Your task to perform on an android device: Open settings on Google Maps Image 0: 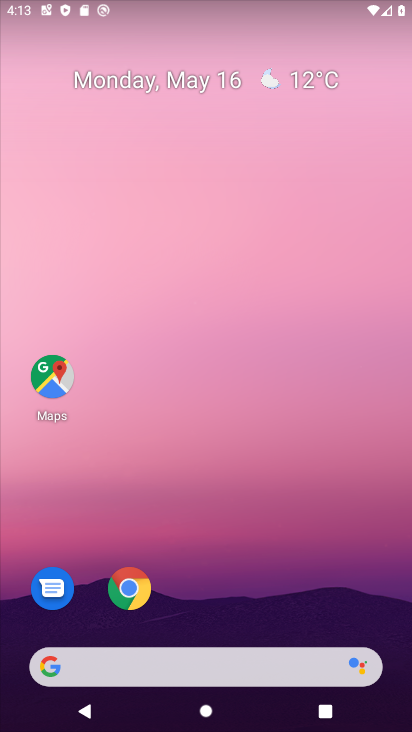
Step 0: click (58, 373)
Your task to perform on an android device: Open settings on Google Maps Image 1: 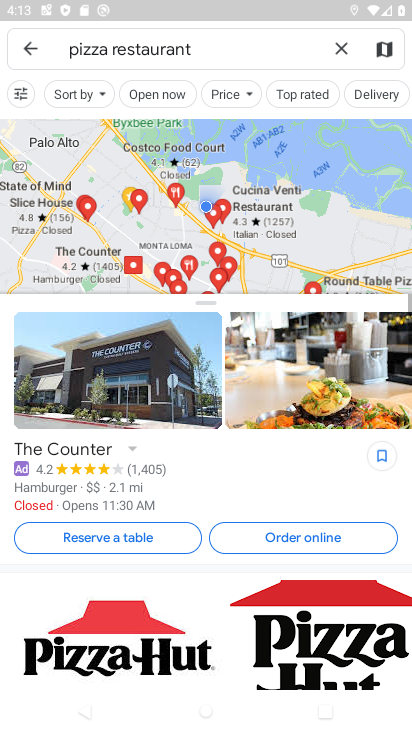
Step 1: click (21, 48)
Your task to perform on an android device: Open settings on Google Maps Image 2: 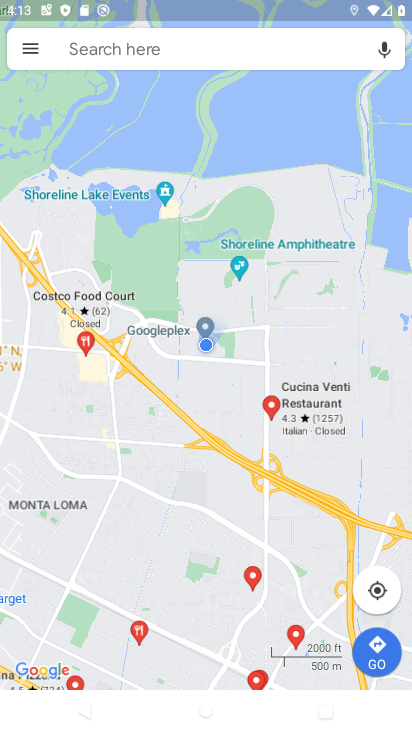
Step 2: click (21, 48)
Your task to perform on an android device: Open settings on Google Maps Image 3: 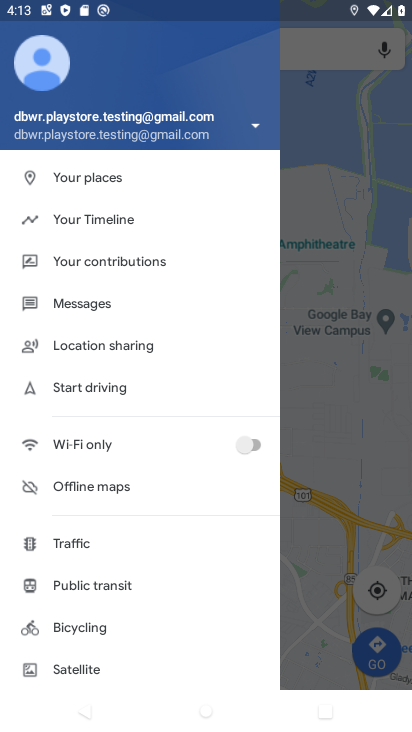
Step 3: drag from (140, 617) to (141, 137)
Your task to perform on an android device: Open settings on Google Maps Image 4: 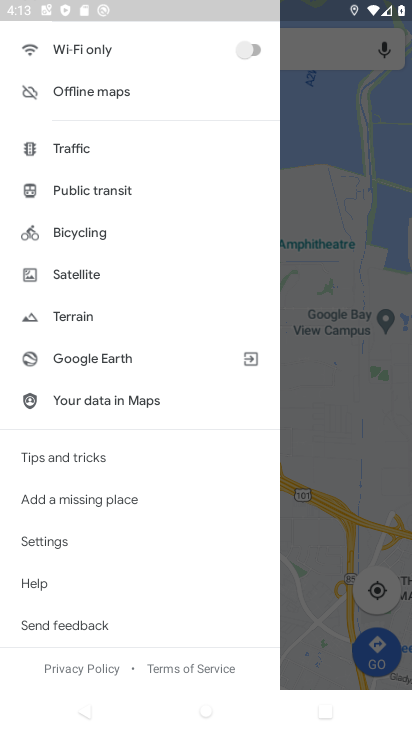
Step 4: click (44, 533)
Your task to perform on an android device: Open settings on Google Maps Image 5: 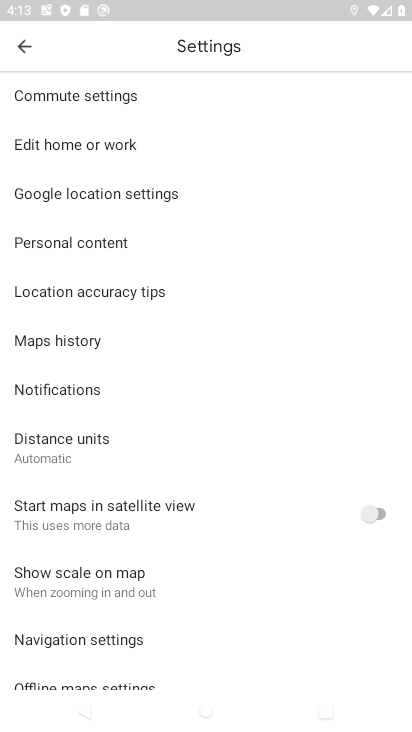
Step 5: task complete